Your task to perform on an android device: change the clock display to analog Image 0: 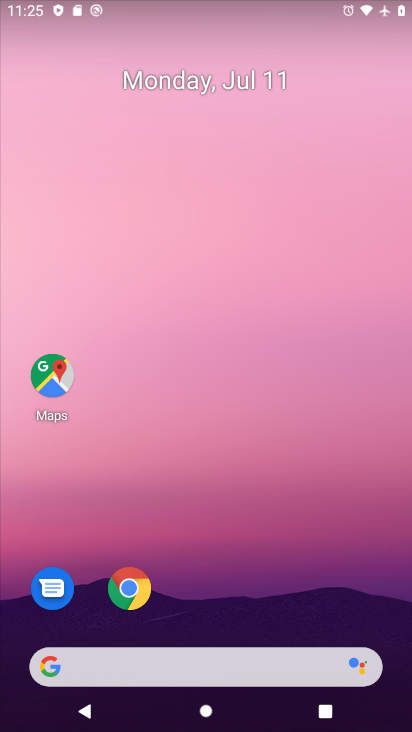
Step 0: press home button
Your task to perform on an android device: change the clock display to analog Image 1: 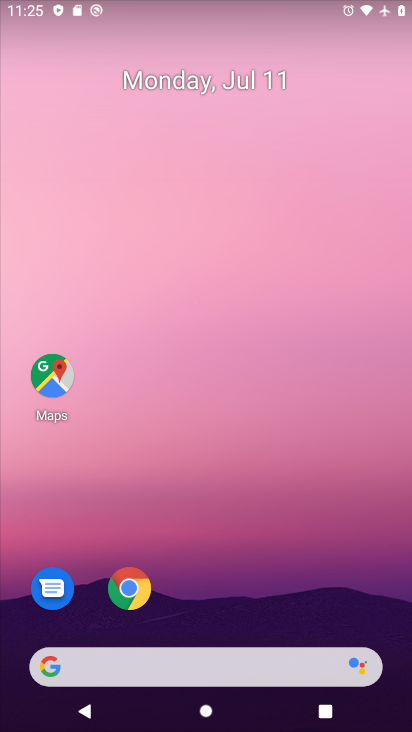
Step 1: drag from (139, 668) to (250, 199)
Your task to perform on an android device: change the clock display to analog Image 2: 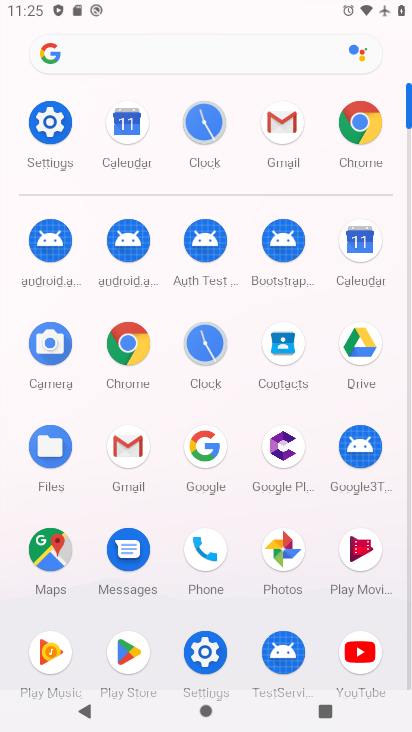
Step 2: click (210, 335)
Your task to perform on an android device: change the clock display to analog Image 3: 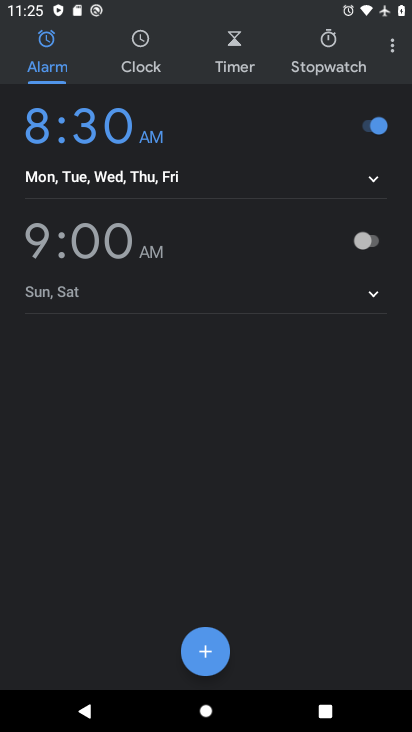
Step 3: click (393, 49)
Your task to perform on an android device: change the clock display to analog Image 4: 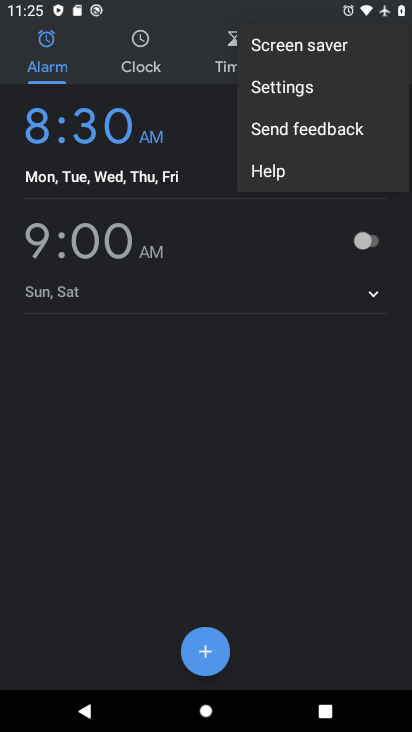
Step 4: click (304, 84)
Your task to perform on an android device: change the clock display to analog Image 5: 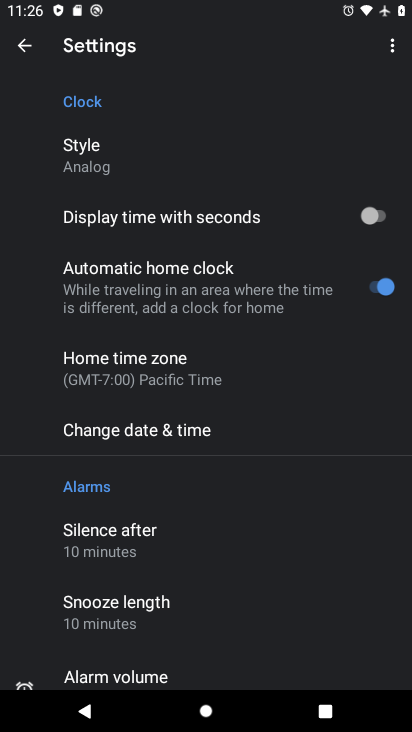
Step 5: click (105, 167)
Your task to perform on an android device: change the clock display to analog Image 6: 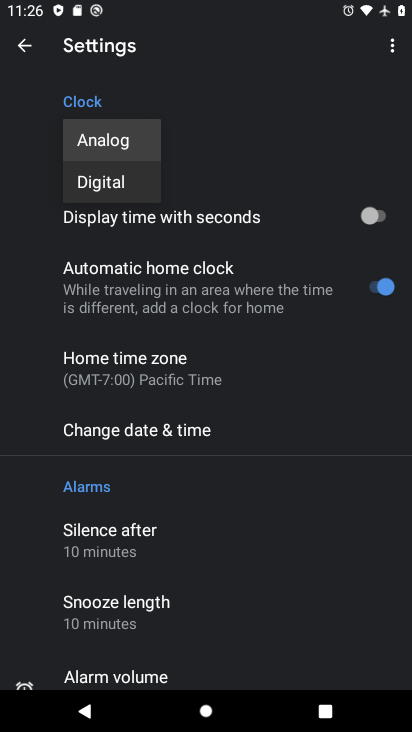
Step 6: task complete